Your task to perform on an android device: Open the phone app and click the voicemail tab. Image 0: 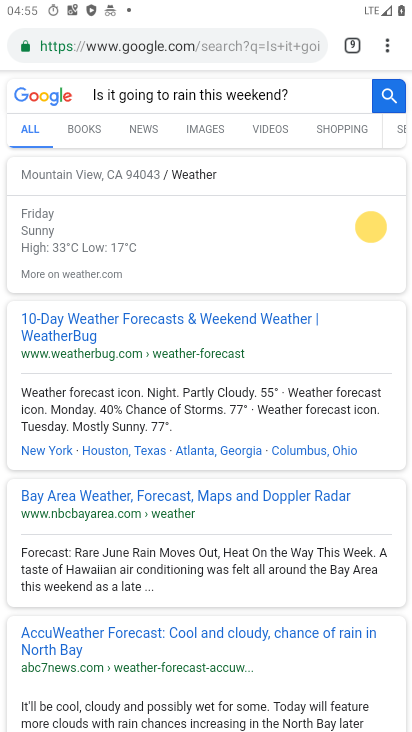
Step 0: press home button
Your task to perform on an android device: Open the phone app and click the voicemail tab. Image 1: 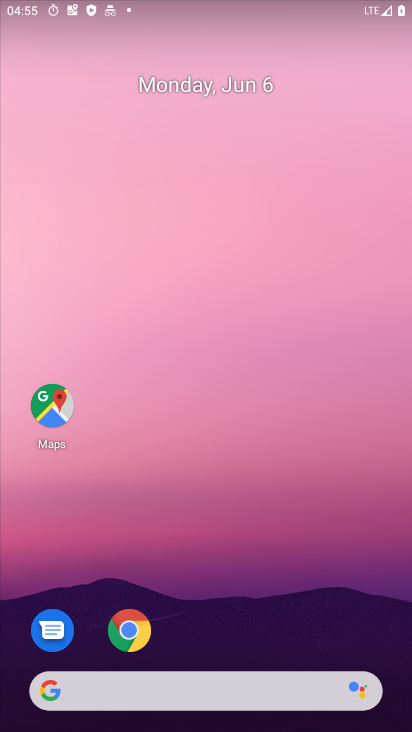
Step 1: drag from (248, 510) to (280, 181)
Your task to perform on an android device: Open the phone app and click the voicemail tab. Image 2: 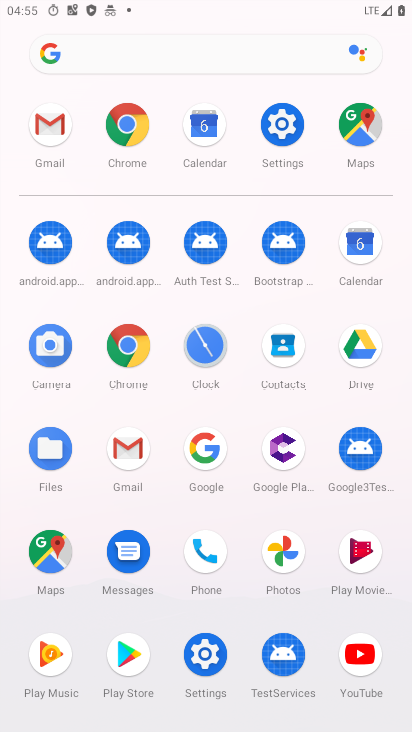
Step 2: click (208, 548)
Your task to perform on an android device: Open the phone app and click the voicemail tab. Image 3: 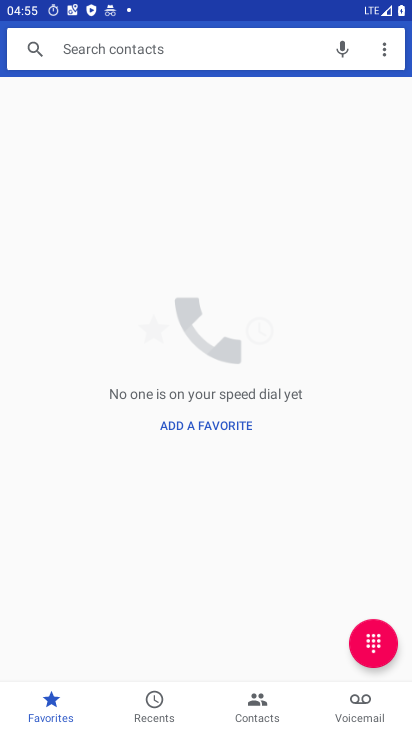
Step 3: click (355, 699)
Your task to perform on an android device: Open the phone app and click the voicemail tab. Image 4: 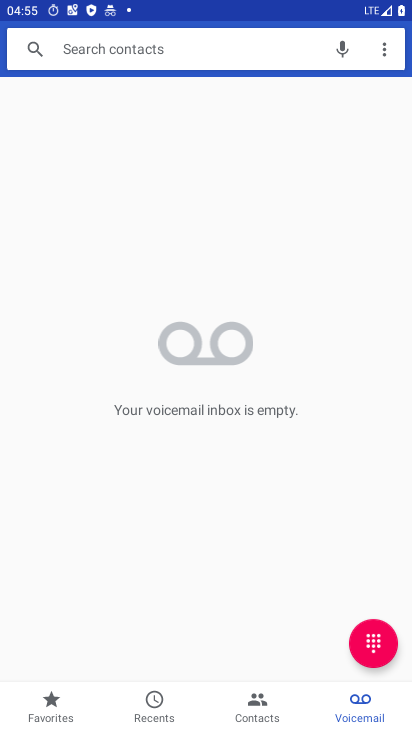
Step 4: task complete